Your task to perform on an android device: change notifications settings Image 0: 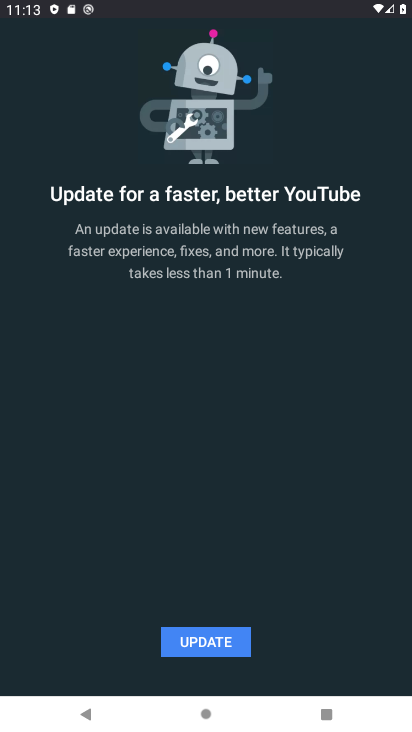
Step 0: press home button
Your task to perform on an android device: change notifications settings Image 1: 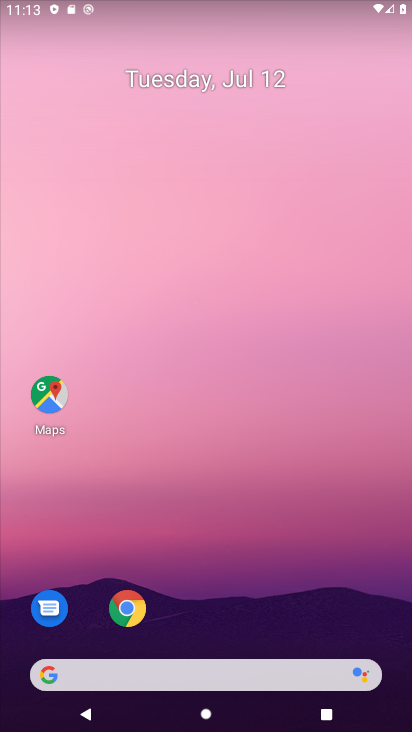
Step 1: drag from (234, 725) to (234, 176)
Your task to perform on an android device: change notifications settings Image 2: 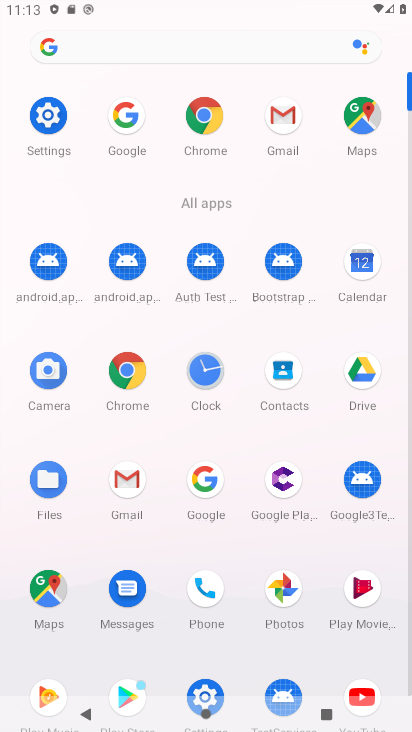
Step 2: click (50, 112)
Your task to perform on an android device: change notifications settings Image 3: 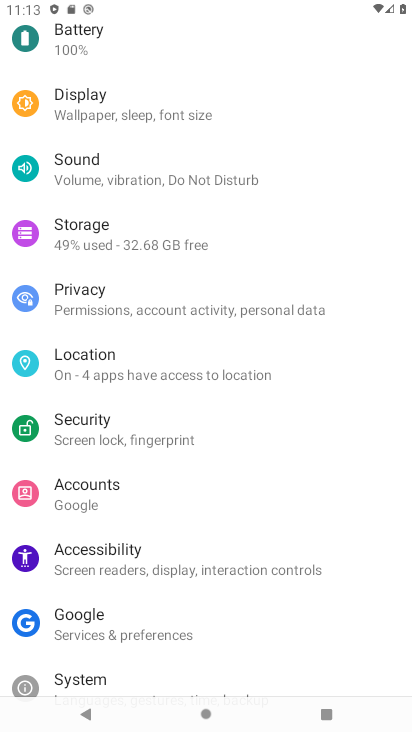
Step 3: drag from (232, 675) to (226, 351)
Your task to perform on an android device: change notifications settings Image 4: 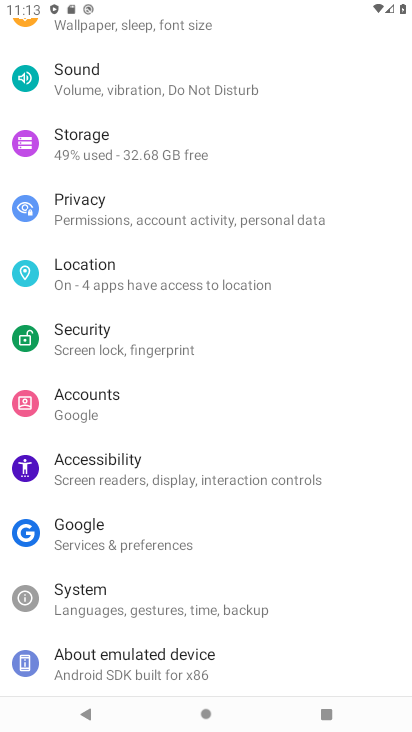
Step 4: drag from (216, 683) to (195, 309)
Your task to perform on an android device: change notifications settings Image 5: 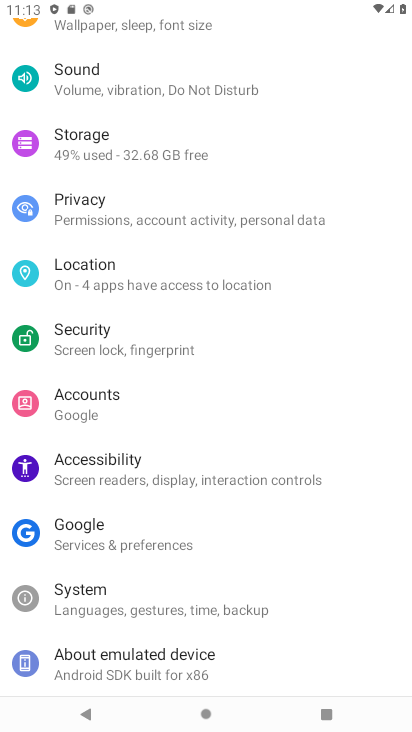
Step 5: drag from (245, 61) to (308, 639)
Your task to perform on an android device: change notifications settings Image 6: 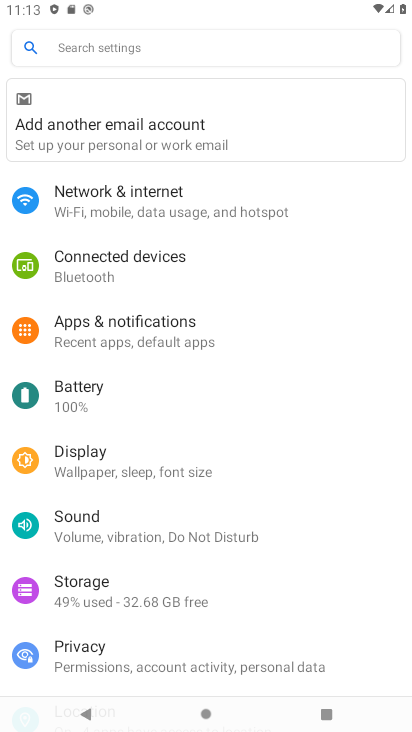
Step 6: click (148, 326)
Your task to perform on an android device: change notifications settings Image 7: 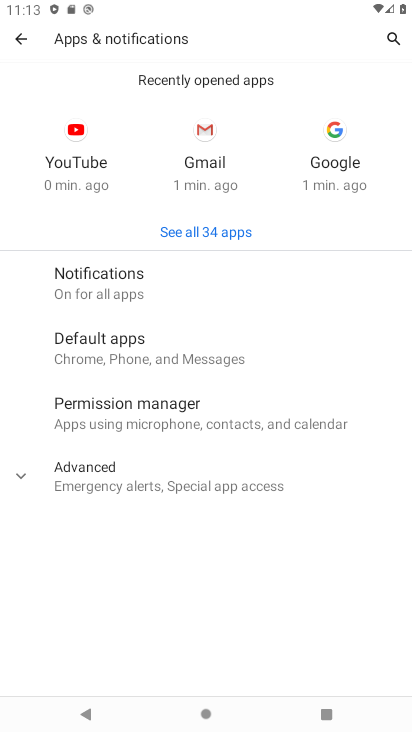
Step 7: click (113, 270)
Your task to perform on an android device: change notifications settings Image 8: 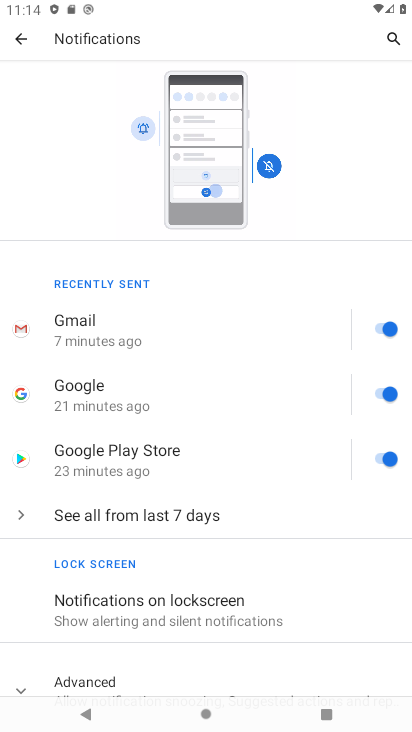
Step 8: drag from (195, 659) to (186, 343)
Your task to perform on an android device: change notifications settings Image 9: 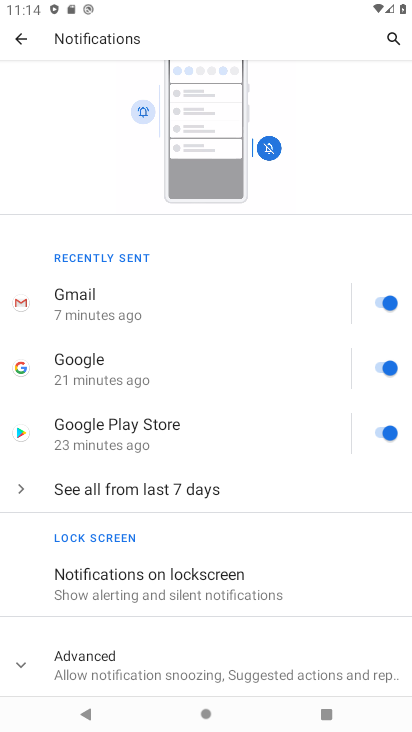
Step 9: click (226, 670)
Your task to perform on an android device: change notifications settings Image 10: 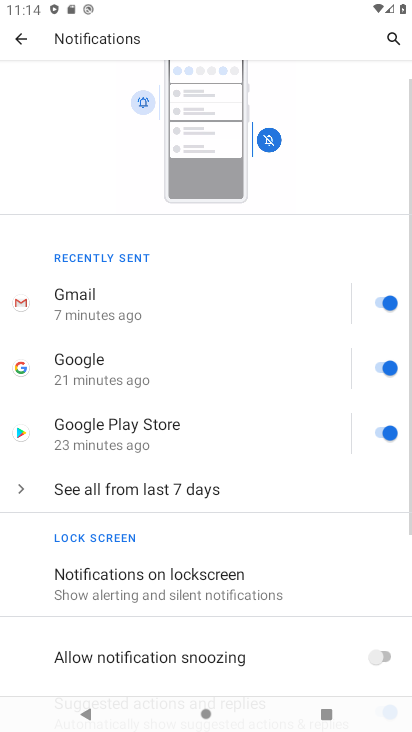
Step 10: click (377, 657)
Your task to perform on an android device: change notifications settings Image 11: 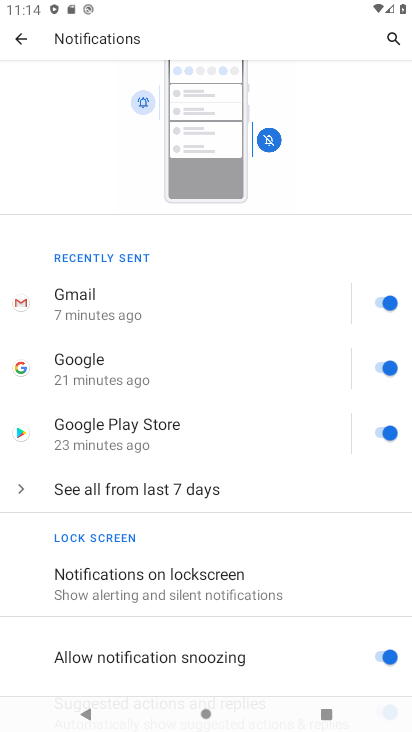
Step 11: task complete